Your task to perform on an android device: allow cookies in the chrome app Image 0: 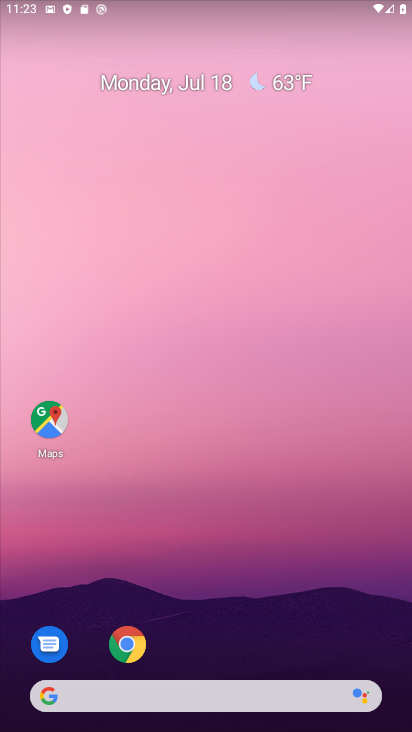
Step 0: click (128, 643)
Your task to perform on an android device: allow cookies in the chrome app Image 1: 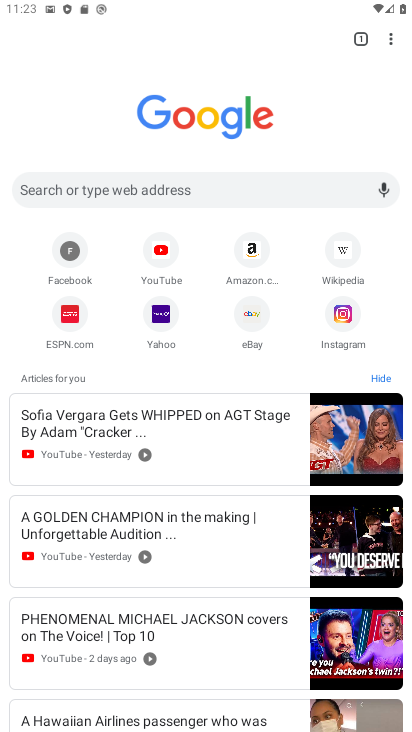
Step 1: click (391, 38)
Your task to perform on an android device: allow cookies in the chrome app Image 2: 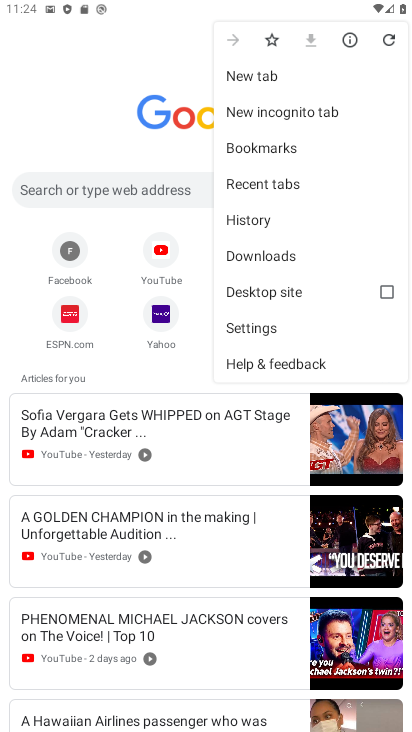
Step 2: click (250, 324)
Your task to perform on an android device: allow cookies in the chrome app Image 3: 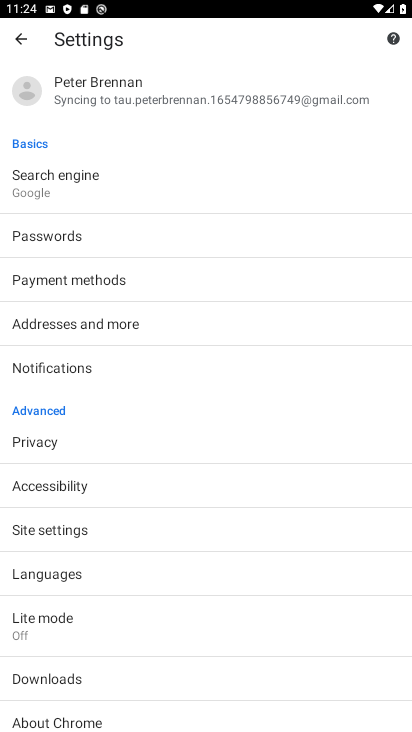
Step 3: click (74, 525)
Your task to perform on an android device: allow cookies in the chrome app Image 4: 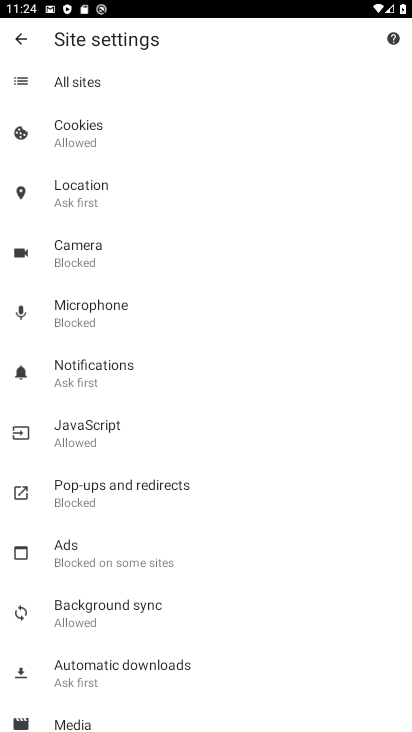
Step 4: click (80, 124)
Your task to perform on an android device: allow cookies in the chrome app Image 5: 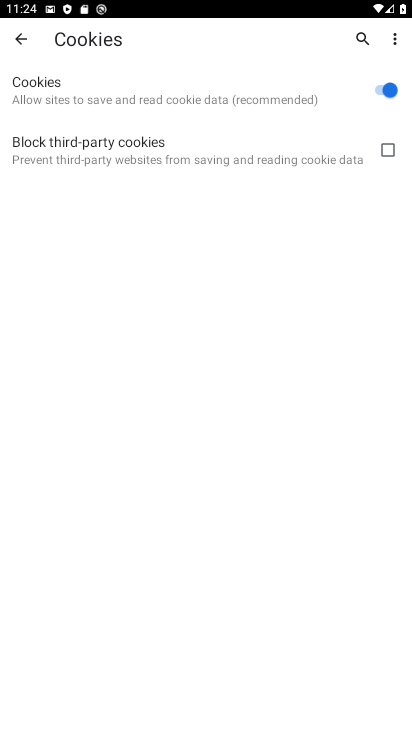
Step 5: task complete